Your task to perform on an android device: move a message to another label in the gmail app Image 0: 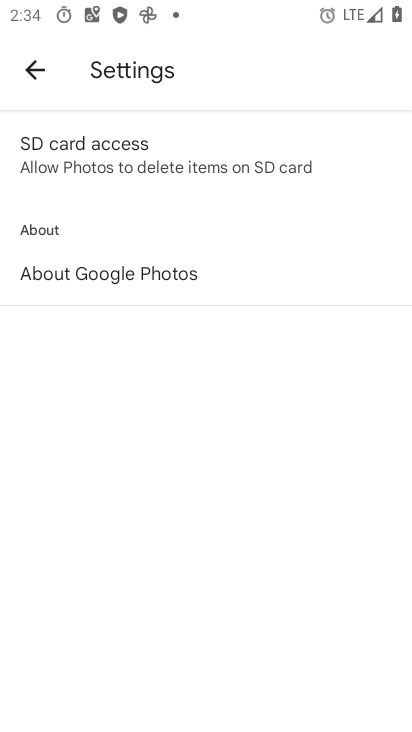
Step 0: press home button
Your task to perform on an android device: move a message to another label in the gmail app Image 1: 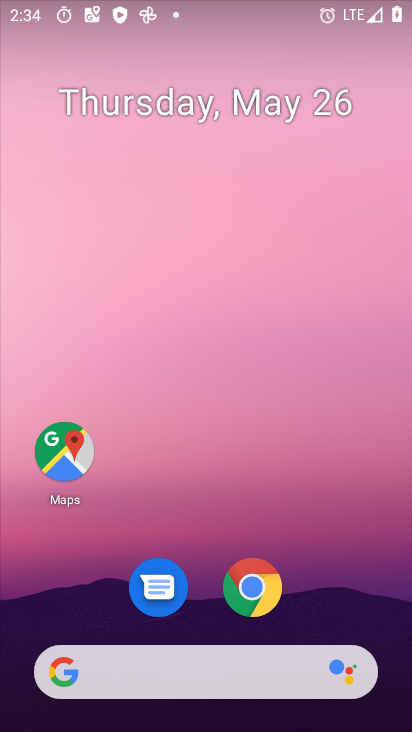
Step 1: drag from (363, 606) to (361, 232)
Your task to perform on an android device: move a message to another label in the gmail app Image 2: 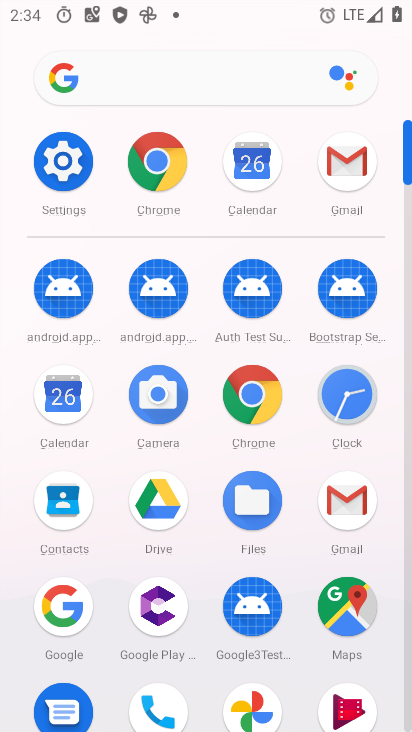
Step 2: click (330, 500)
Your task to perform on an android device: move a message to another label in the gmail app Image 3: 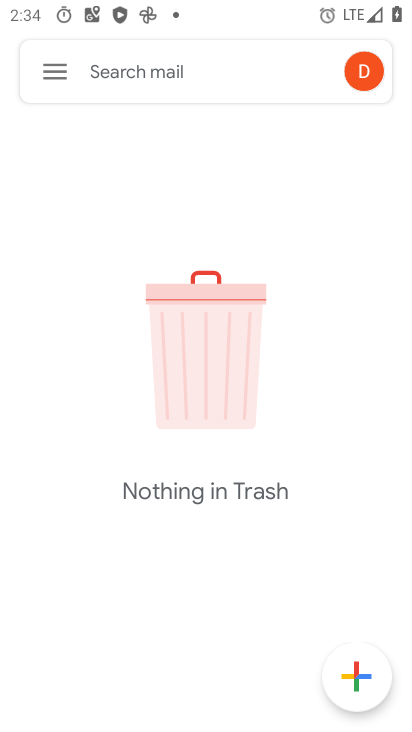
Step 3: click (63, 77)
Your task to perform on an android device: move a message to another label in the gmail app Image 4: 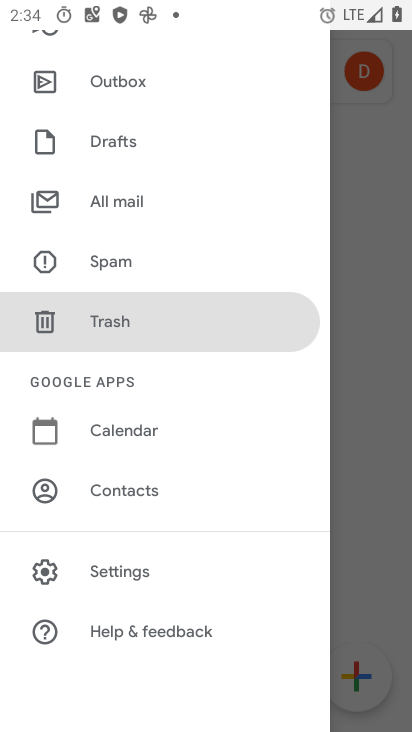
Step 4: drag from (196, 225) to (182, 336)
Your task to perform on an android device: move a message to another label in the gmail app Image 5: 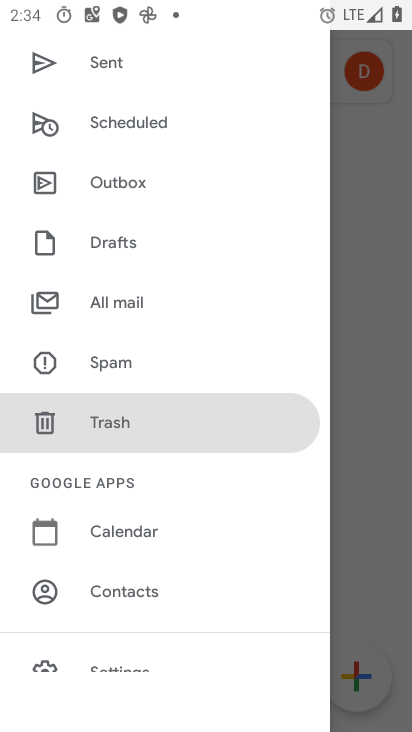
Step 5: drag from (217, 199) to (208, 298)
Your task to perform on an android device: move a message to another label in the gmail app Image 6: 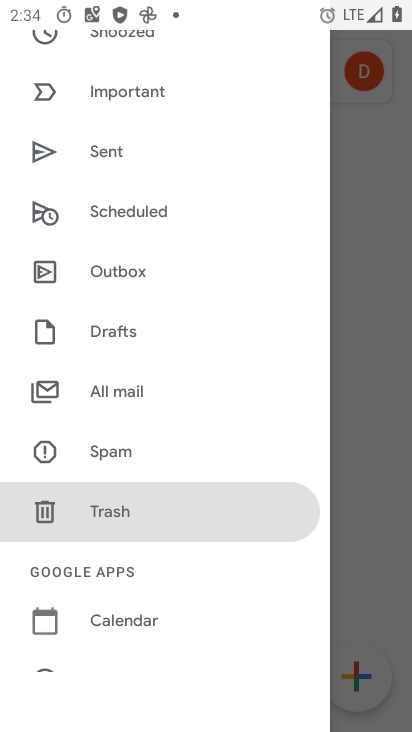
Step 6: drag from (246, 171) to (242, 294)
Your task to perform on an android device: move a message to another label in the gmail app Image 7: 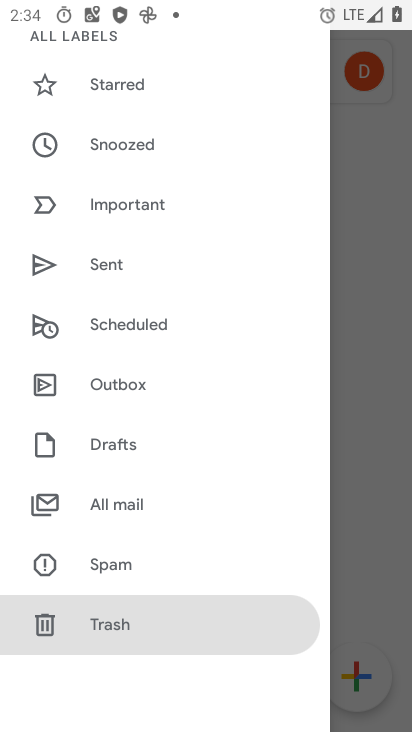
Step 7: drag from (250, 141) to (221, 305)
Your task to perform on an android device: move a message to another label in the gmail app Image 8: 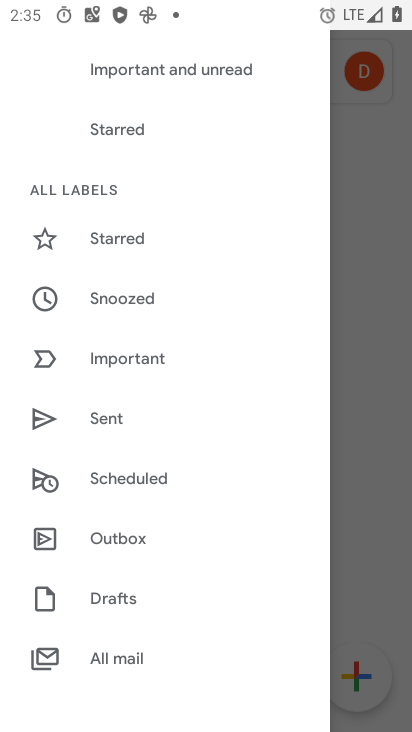
Step 8: drag from (246, 176) to (247, 324)
Your task to perform on an android device: move a message to another label in the gmail app Image 9: 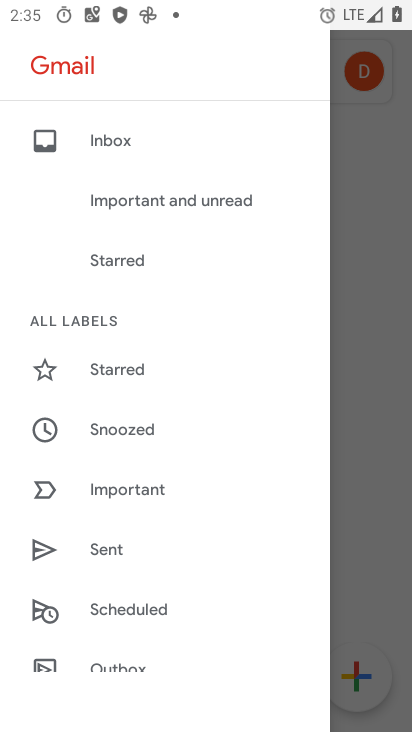
Step 9: click (128, 136)
Your task to perform on an android device: move a message to another label in the gmail app Image 10: 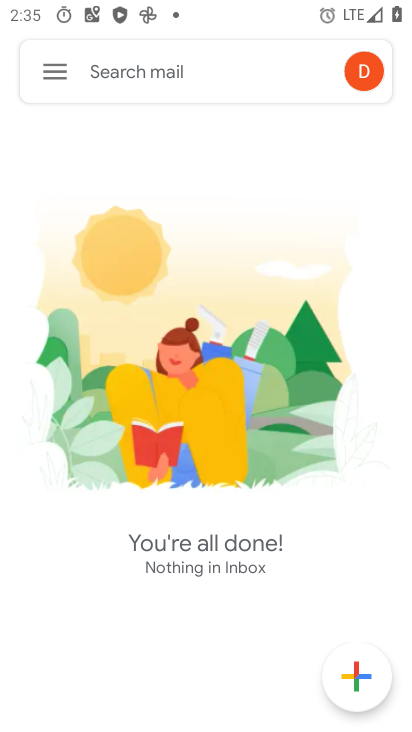
Step 10: task complete